Your task to perform on an android device: add a label to a message in the gmail app Image 0: 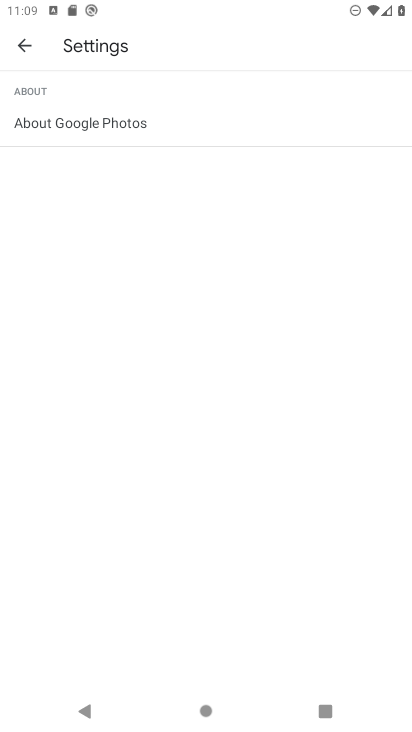
Step 0: press home button
Your task to perform on an android device: add a label to a message in the gmail app Image 1: 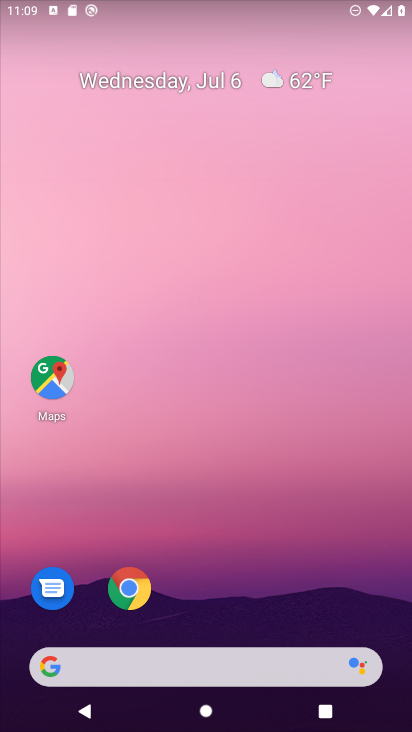
Step 1: drag from (313, 608) to (238, 119)
Your task to perform on an android device: add a label to a message in the gmail app Image 2: 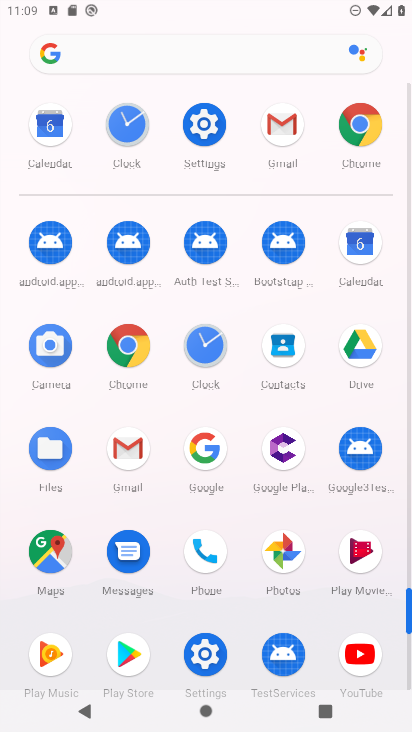
Step 2: click (127, 447)
Your task to perform on an android device: add a label to a message in the gmail app Image 3: 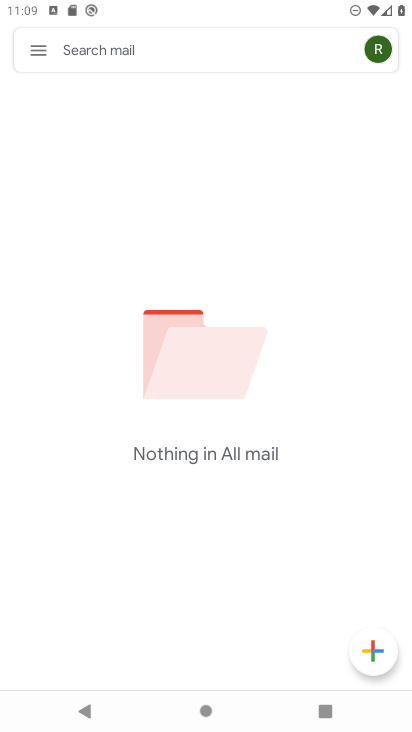
Step 3: task complete